Your task to perform on an android device: Go to accessibility settings Image 0: 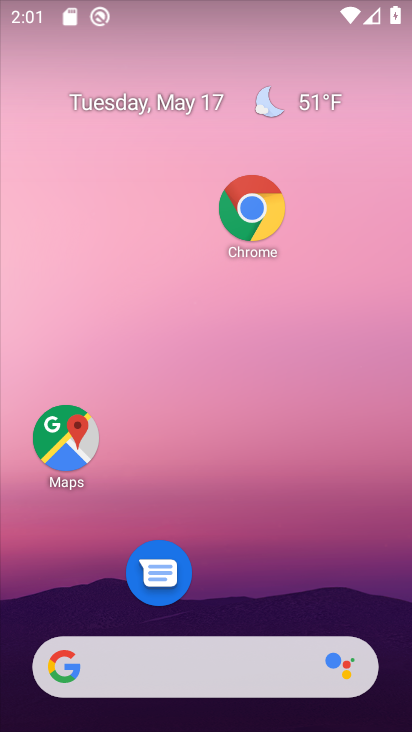
Step 0: drag from (221, 606) to (169, 92)
Your task to perform on an android device: Go to accessibility settings Image 1: 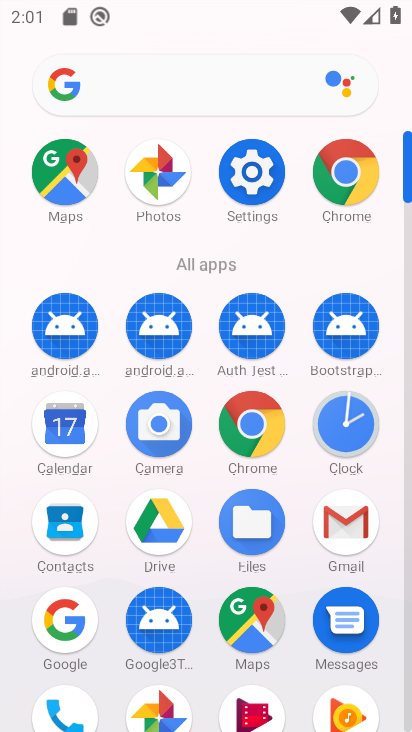
Step 1: click (247, 181)
Your task to perform on an android device: Go to accessibility settings Image 2: 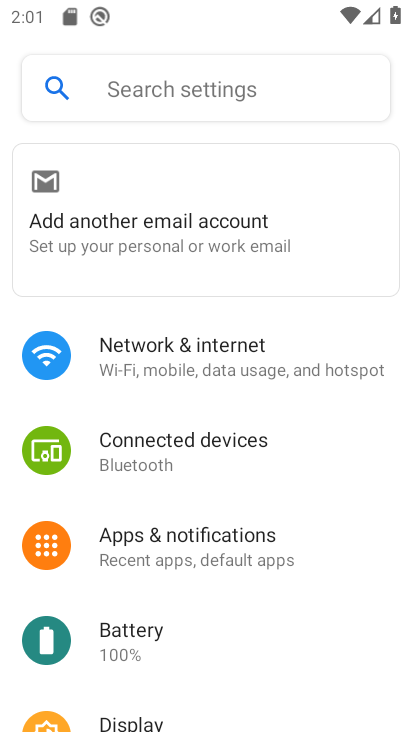
Step 2: drag from (248, 557) to (243, 113)
Your task to perform on an android device: Go to accessibility settings Image 3: 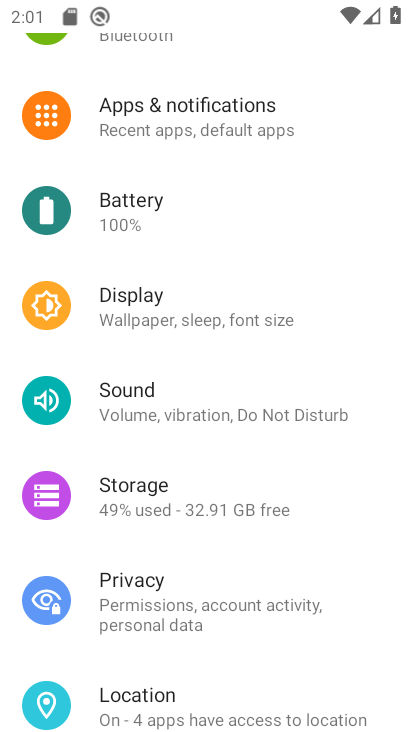
Step 3: drag from (211, 550) to (177, 138)
Your task to perform on an android device: Go to accessibility settings Image 4: 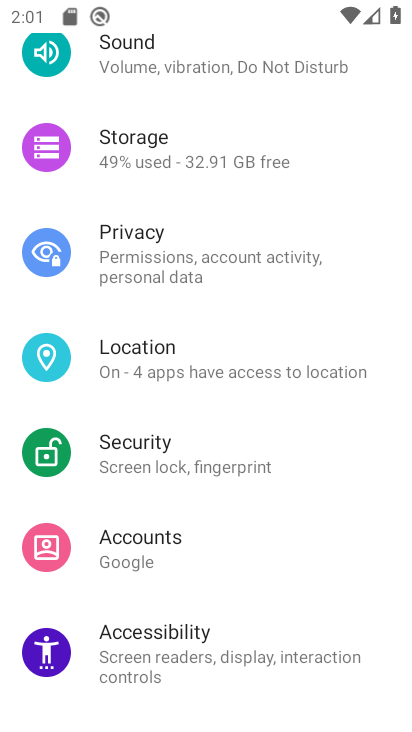
Step 4: click (115, 641)
Your task to perform on an android device: Go to accessibility settings Image 5: 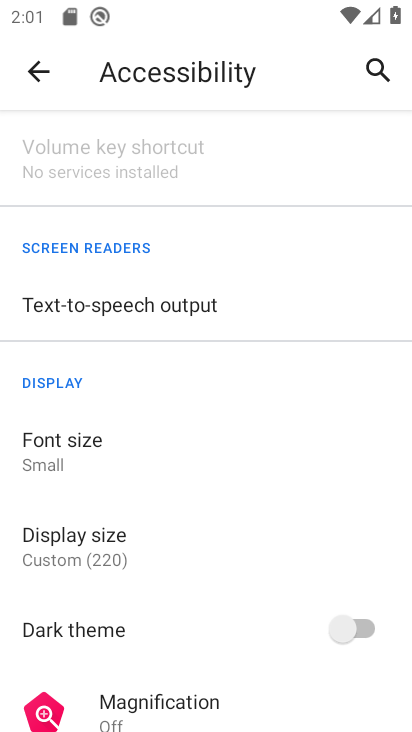
Step 5: task complete